Your task to perform on an android device: delete location history Image 0: 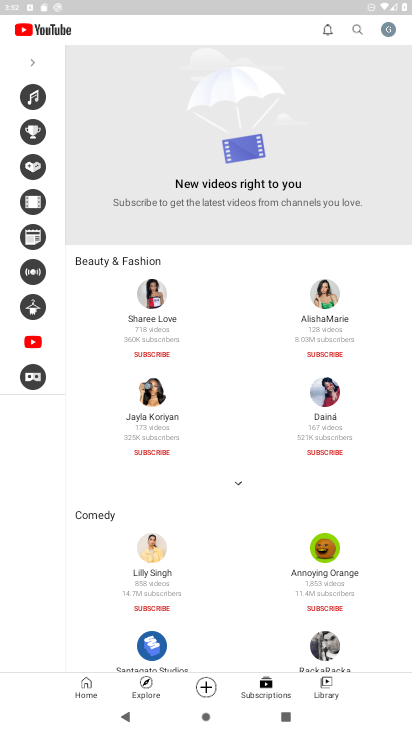
Step 0: press home button
Your task to perform on an android device: delete location history Image 1: 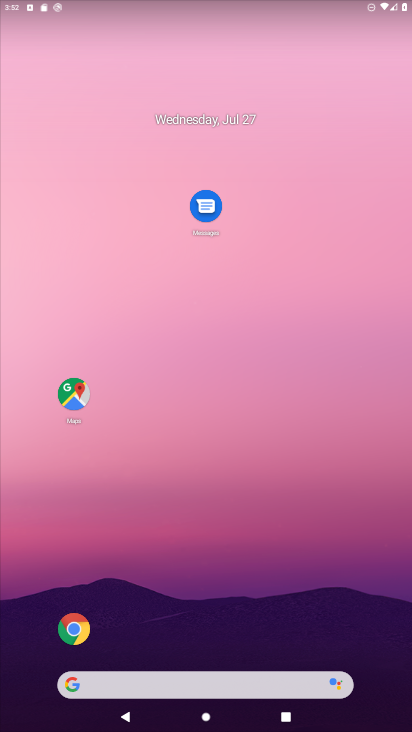
Step 1: drag from (218, 642) to (141, 84)
Your task to perform on an android device: delete location history Image 2: 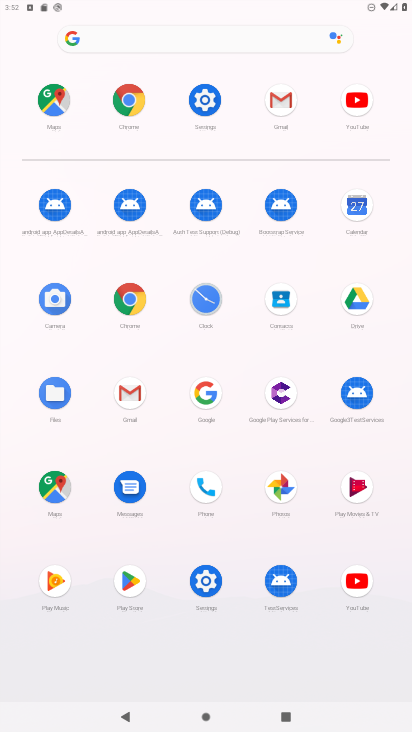
Step 2: click (221, 120)
Your task to perform on an android device: delete location history Image 3: 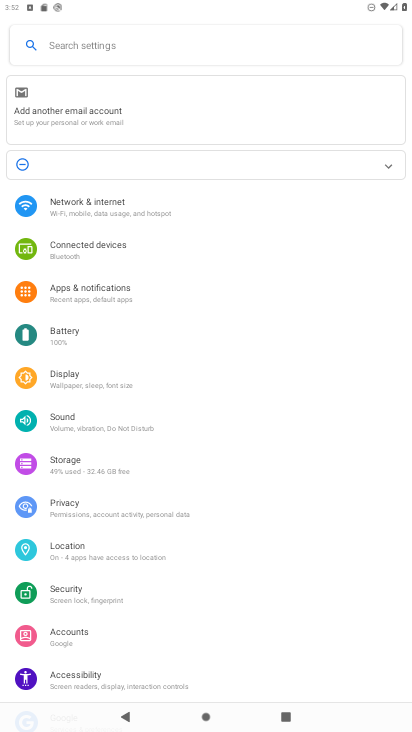
Step 3: press home button
Your task to perform on an android device: delete location history Image 4: 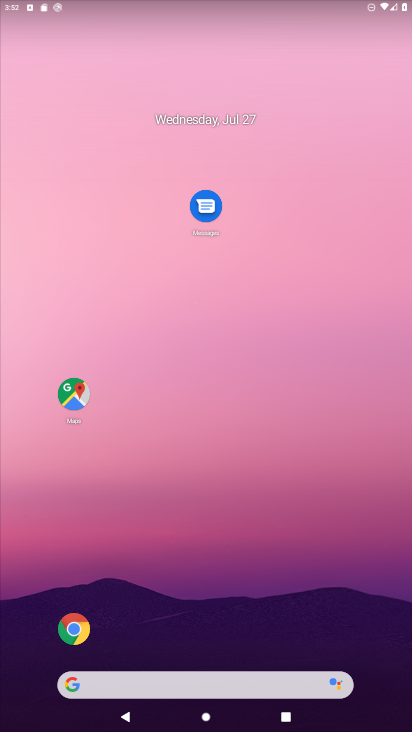
Step 4: click (70, 389)
Your task to perform on an android device: delete location history Image 5: 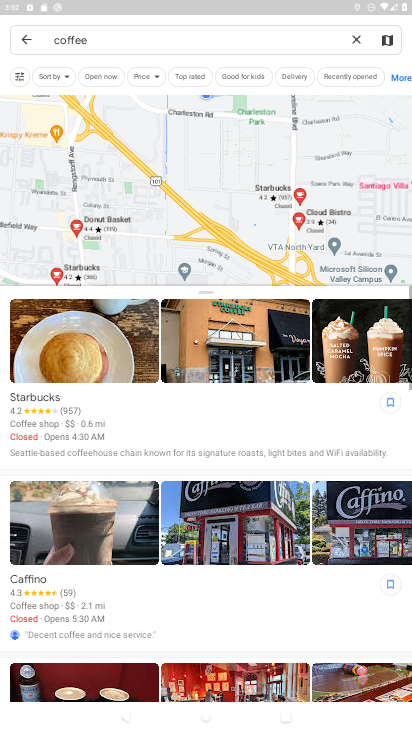
Step 5: click (21, 47)
Your task to perform on an android device: delete location history Image 6: 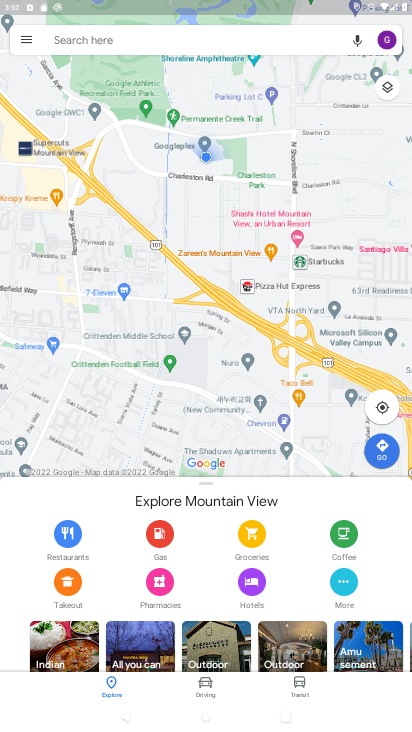
Step 6: click (21, 47)
Your task to perform on an android device: delete location history Image 7: 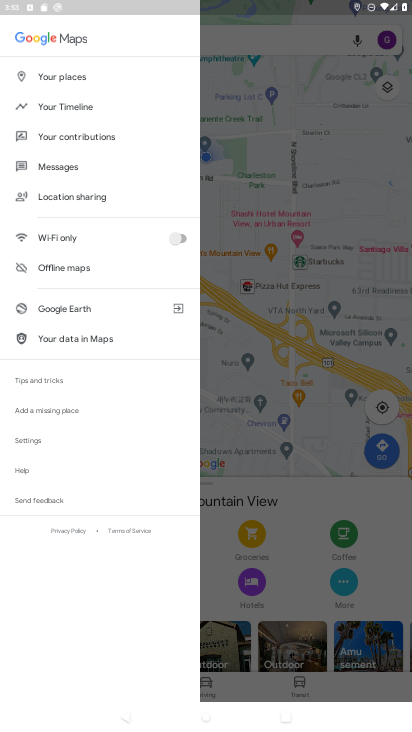
Step 7: click (56, 99)
Your task to perform on an android device: delete location history Image 8: 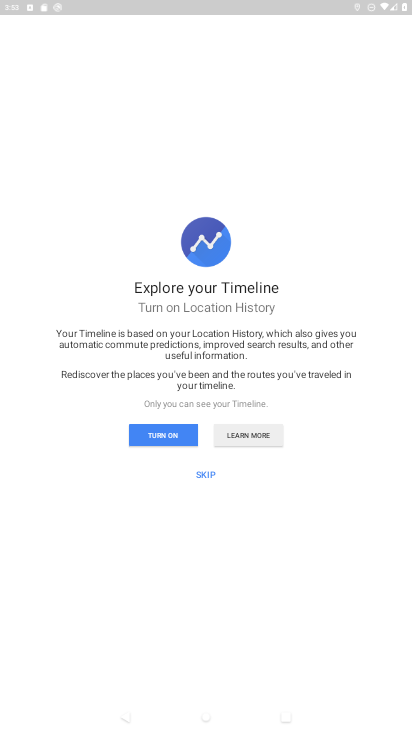
Step 8: click (167, 438)
Your task to perform on an android device: delete location history Image 9: 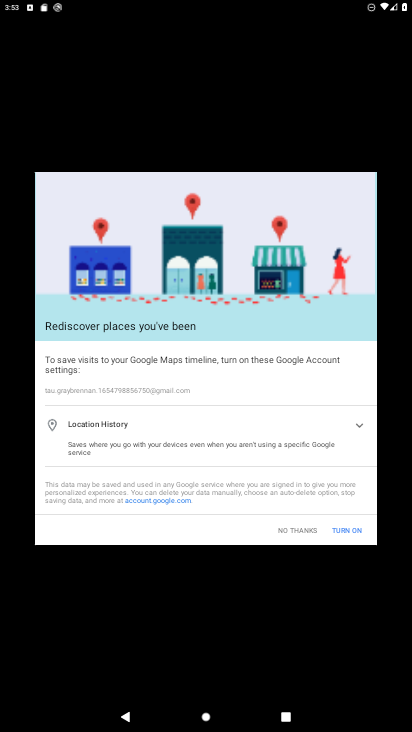
Step 9: click (347, 534)
Your task to perform on an android device: delete location history Image 10: 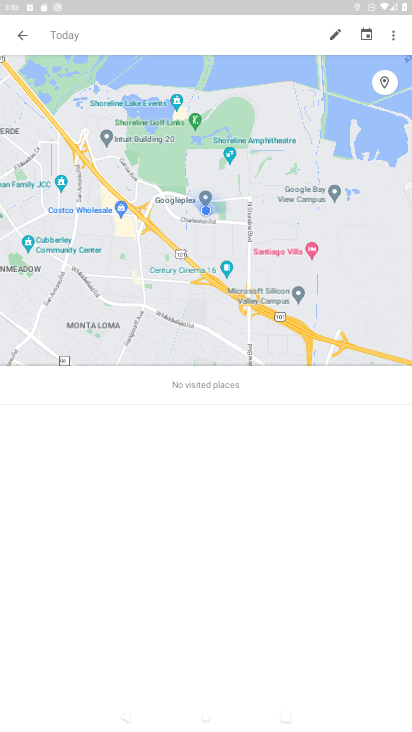
Step 10: click (398, 40)
Your task to perform on an android device: delete location history Image 11: 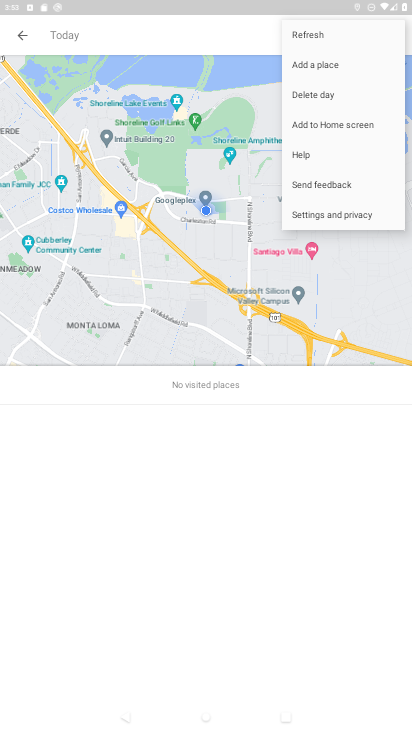
Step 11: click (328, 221)
Your task to perform on an android device: delete location history Image 12: 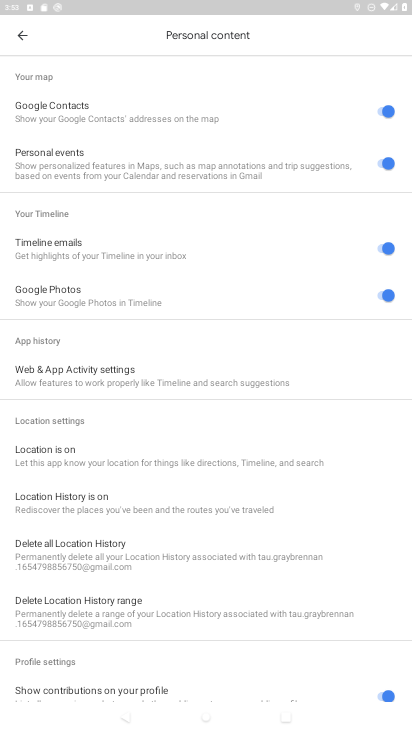
Step 12: click (120, 550)
Your task to perform on an android device: delete location history Image 13: 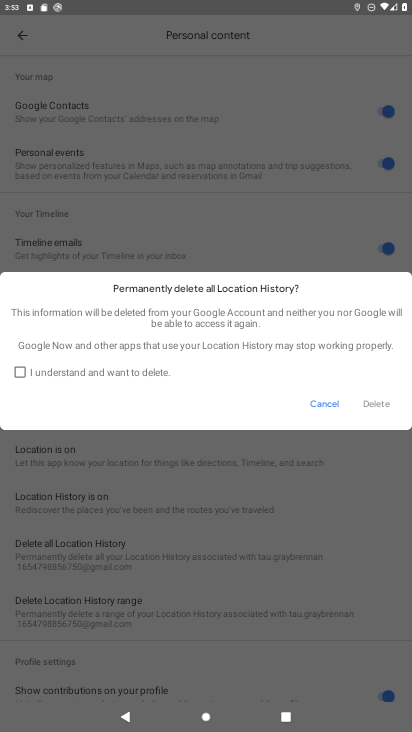
Step 13: click (18, 375)
Your task to perform on an android device: delete location history Image 14: 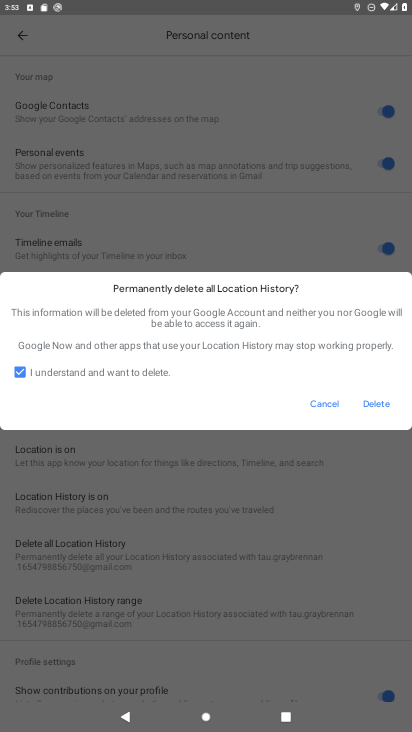
Step 14: click (364, 409)
Your task to perform on an android device: delete location history Image 15: 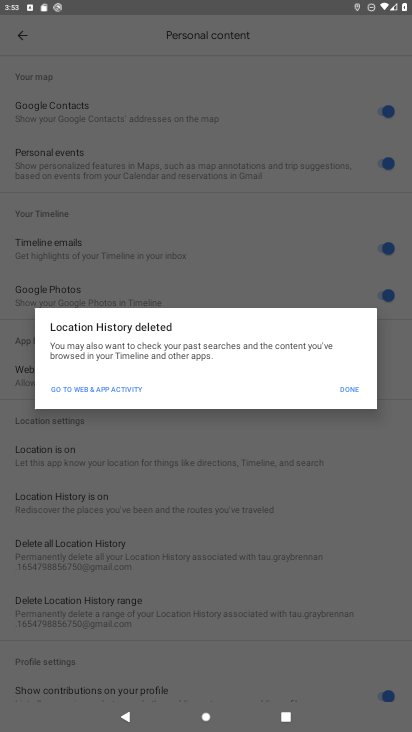
Step 15: task complete